Your task to perform on an android device: Check the settings for the Amazon Alexa app Image 0: 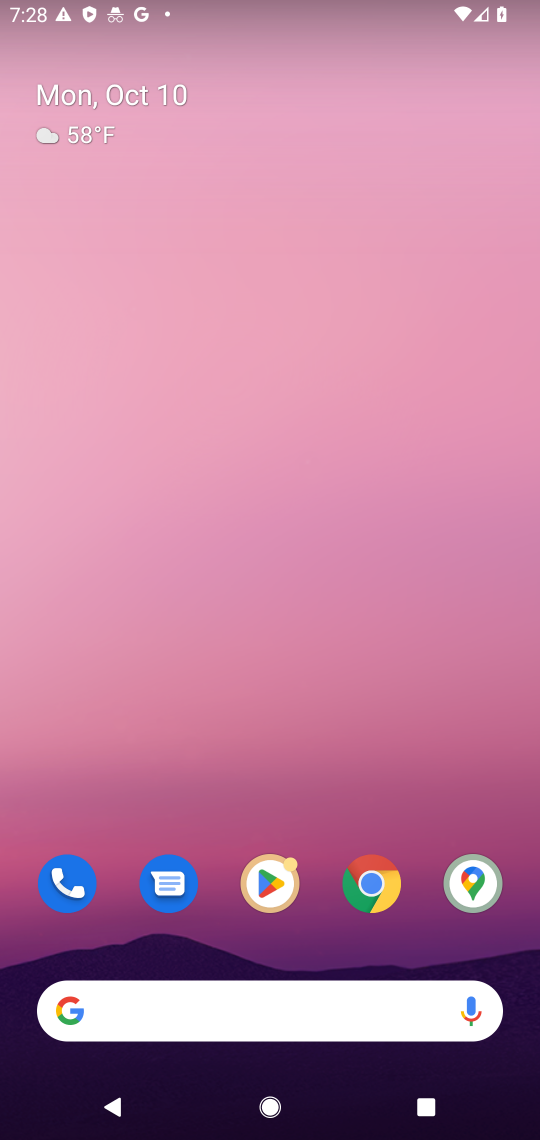
Step 0: drag from (326, 954) to (327, 889)
Your task to perform on an android device: Check the settings for the Amazon Alexa app Image 1: 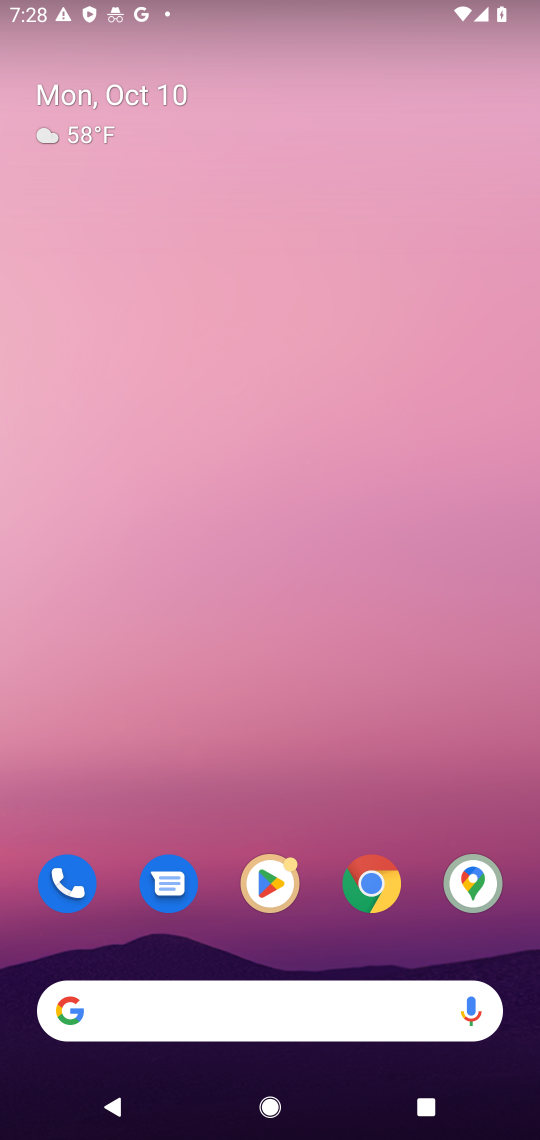
Step 1: task complete